Your task to perform on an android device: turn off data saver in the chrome app Image 0: 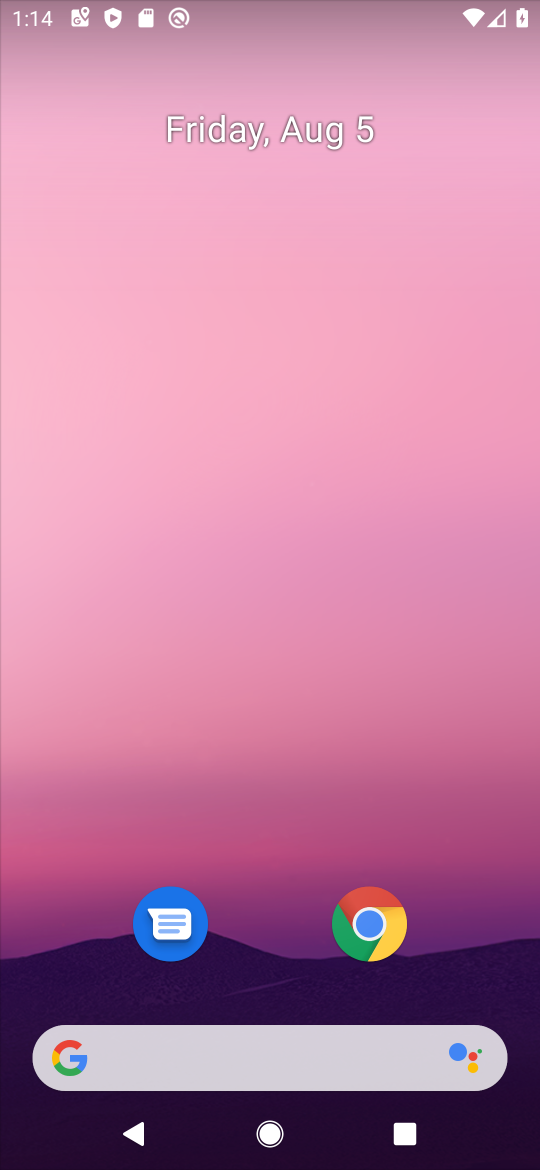
Step 0: click (366, 931)
Your task to perform on an android device: turn off data saver in the chrome app Image 1: 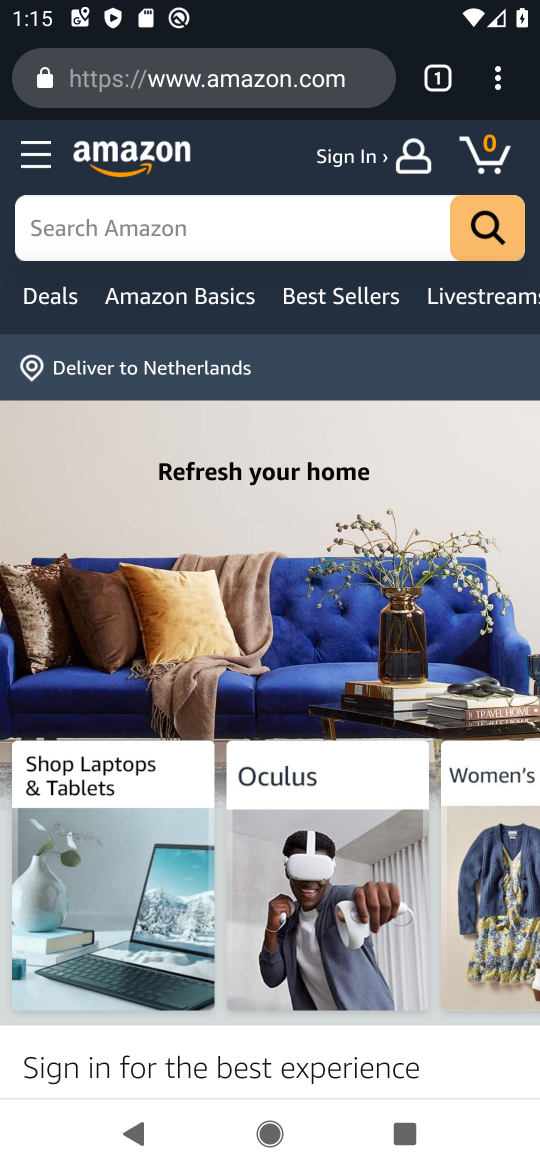
Step 1: click (502, 85)
Your task to perform on an android device: turn off data saver in the chrome app Image 2: 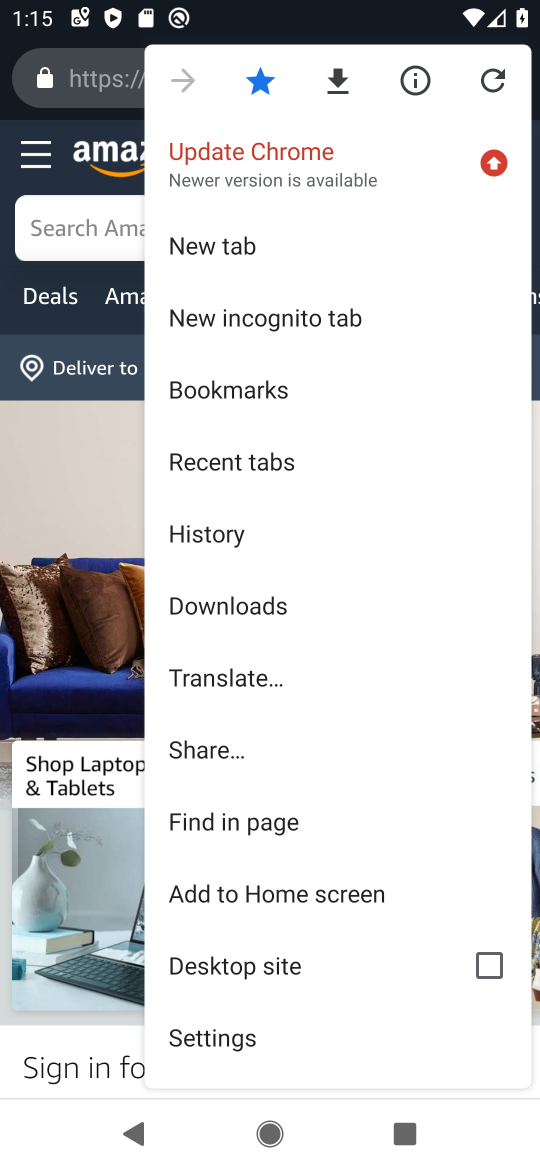
Step 2: click (238, 1033)
Your task to perform on an android device: turn off data saver in the chrome app Image 3: 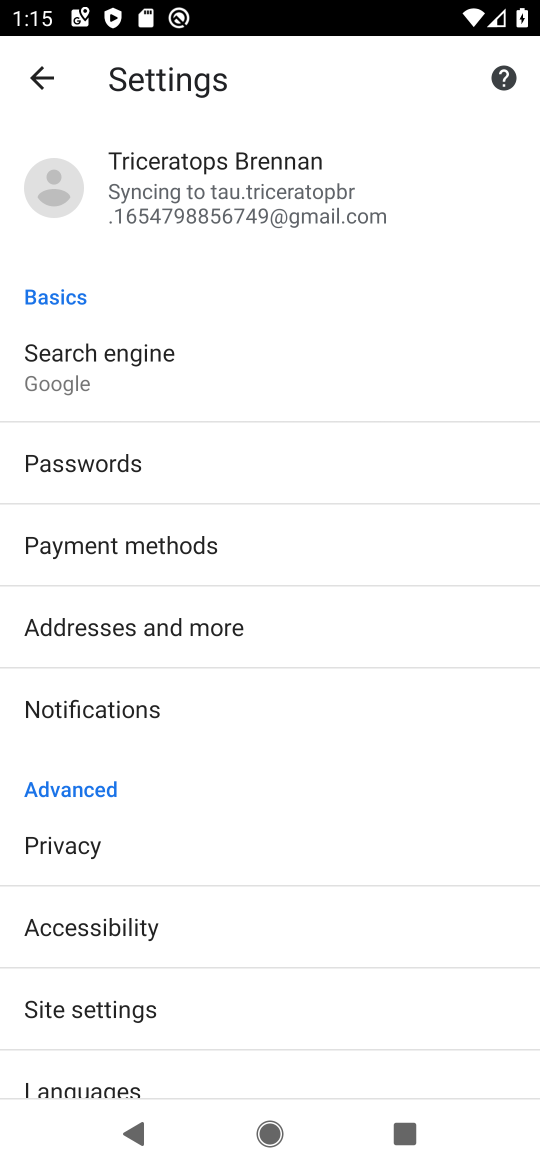
Step 3: drag from (166, 933) to (205, 461)
Your task to perform on an android device: turn off data saver in the chrome app Image 4: 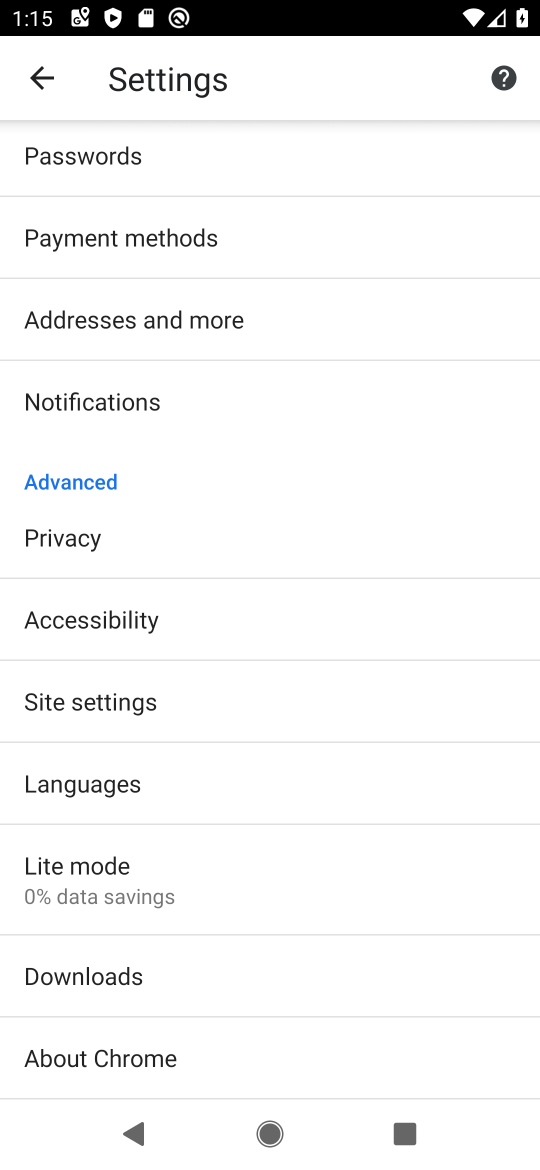
Step 4: click (138, 904)
Your task to perform on an android device: turn off data saver in the chrome app Image 5: 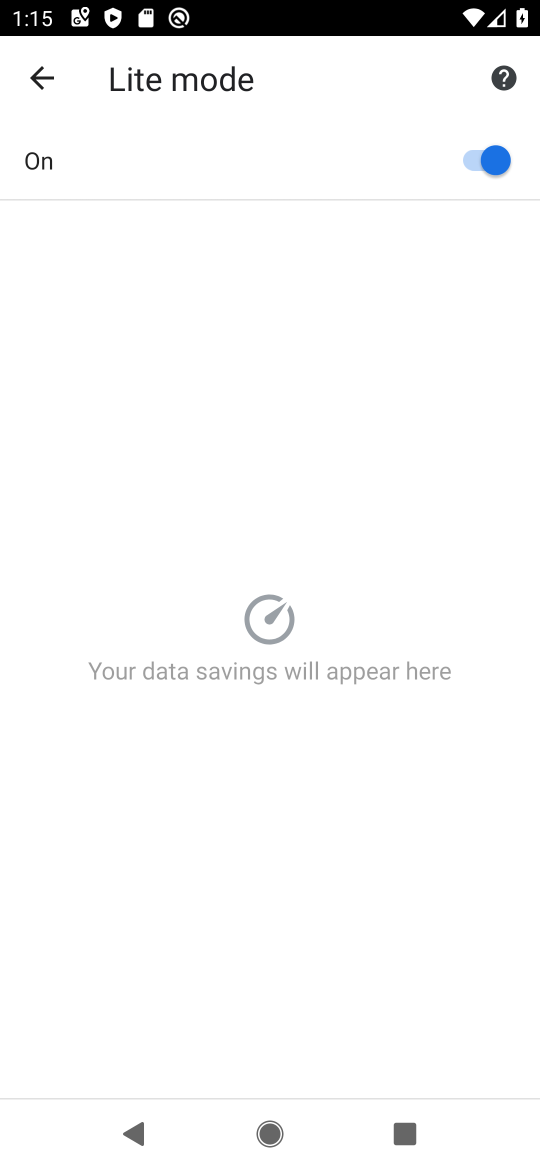
Step 5: click (482, 161)
Your task to perform on an android device: turn off data saver in the chrome app Image 6: 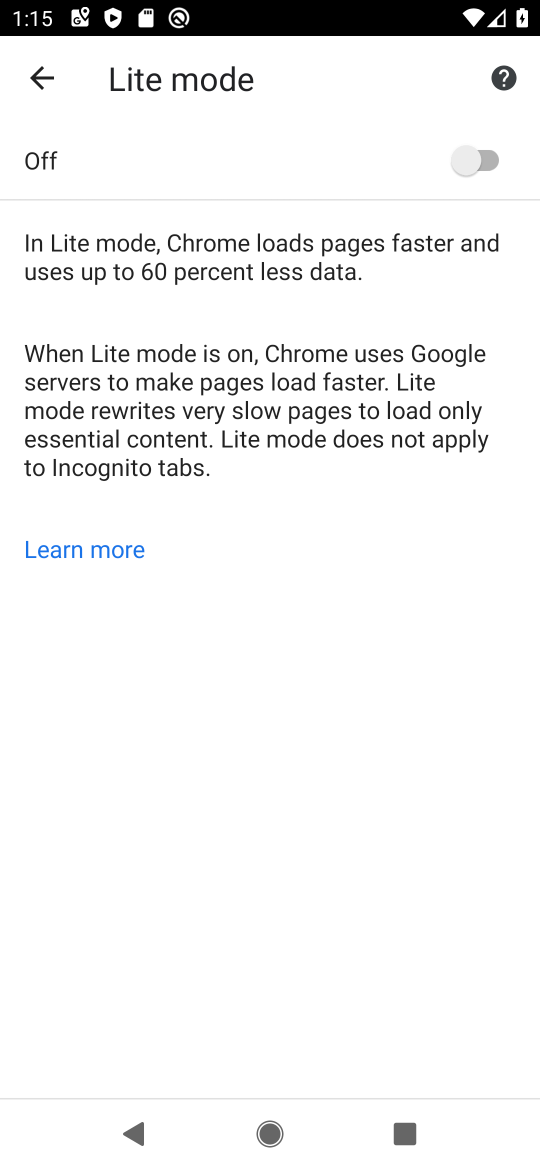
Step 6: task complete